Your task to perform on an android device: turn off javascript in the chrome app Image 0: 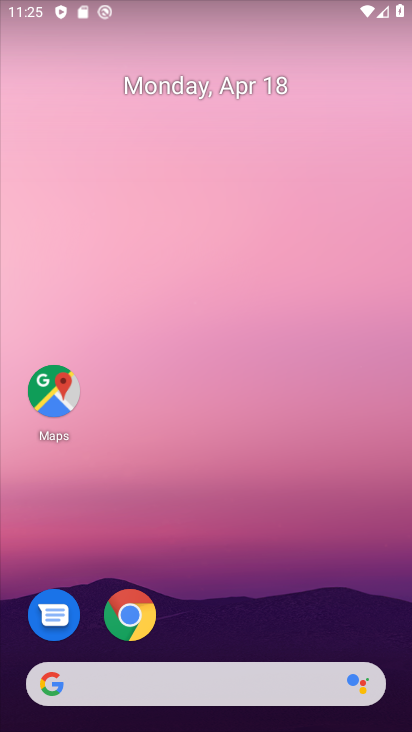
Step 0: click (128, 616)
Your task to perform on an android device: turn off javascript in the chrome app Image 1: 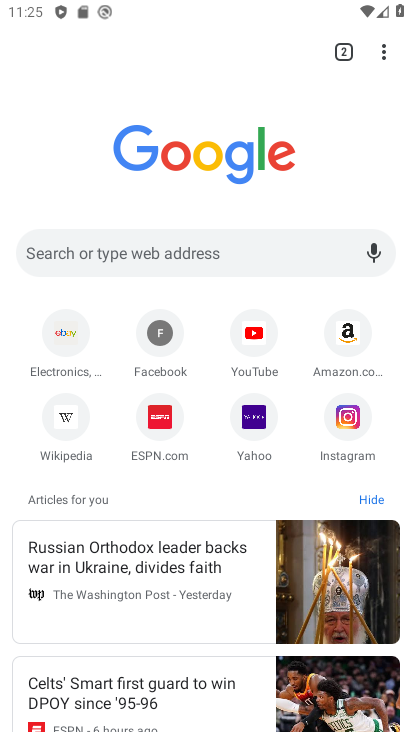
Step 1: click (382, 51)
Your task to perform on an android device: turn off javascript in the chrome app Image 2: 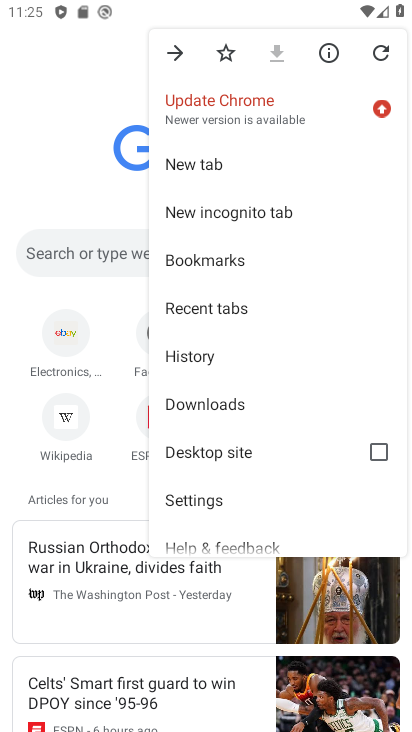
Step 2: click (194, 500)
Your task to perform on an android device: turn off javascript in the chrome app Image 3: 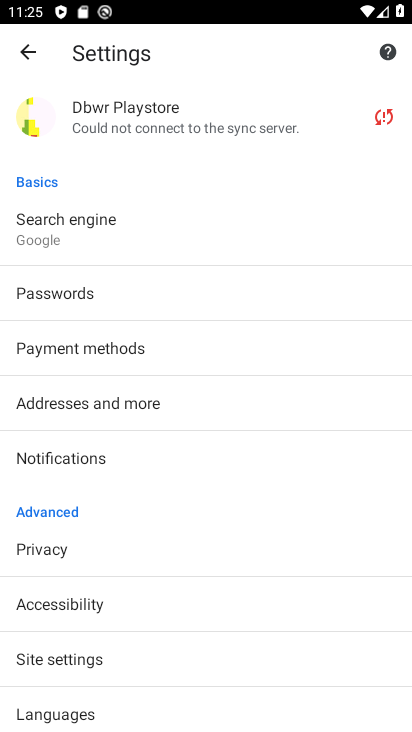
Step 3: click (58, 661)
Your task to perform on an android device: turn off javascript in the chrome app Image 4: 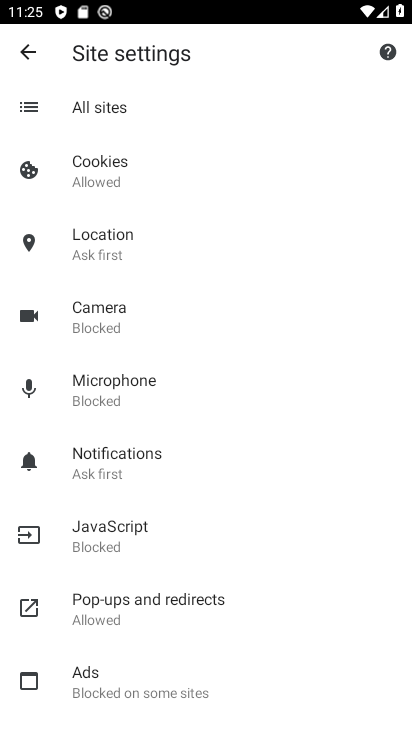
Step 4: click (117, 529)
Your task to perform on an android device: turn off javascript in the chrome app Image 5: 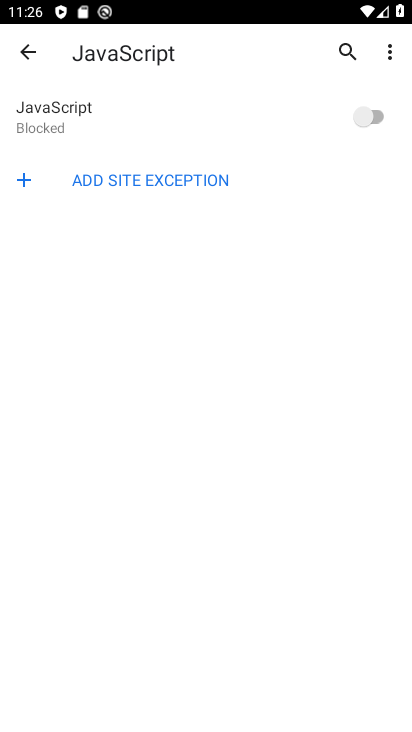
Step 5: task complete